Your task to perform on an android device: Open Chrome and go to settings Image 0: 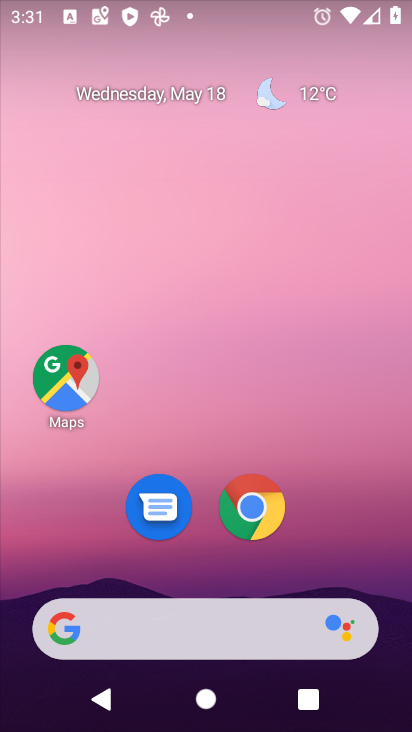
Step 0: click (252, 506)
Your task to perform on an android device: Open Chrome and go to settings Image 1: 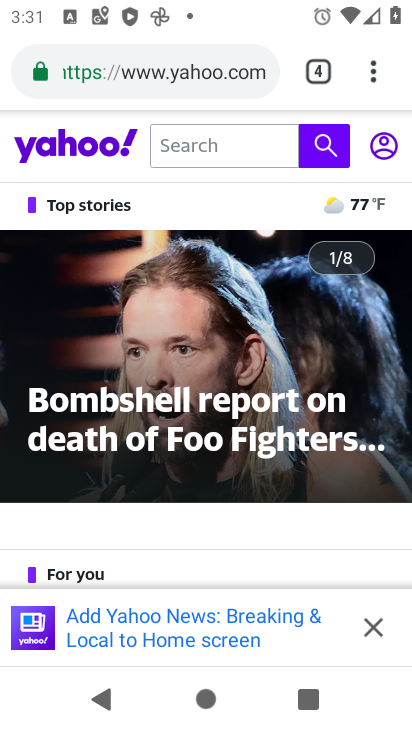
Step 1: click (370, 77)
Your task to perform on an android device: Open Chrome and go to settings Image 2: 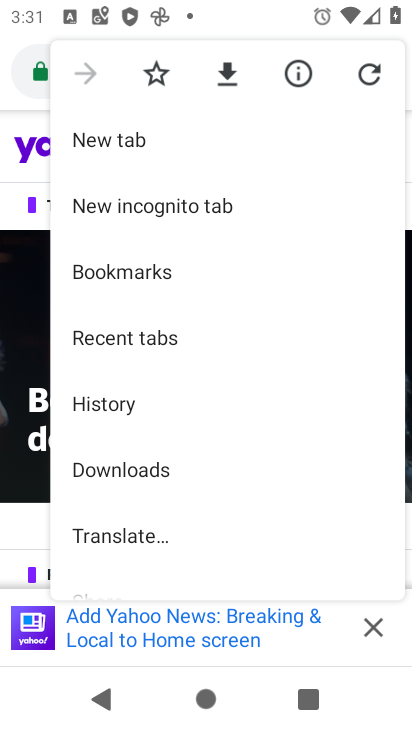
Step 2: drag from (213, 516) to (238, 146)
Your task to perform on an android device: Open Chrome and go to settings Image 3: 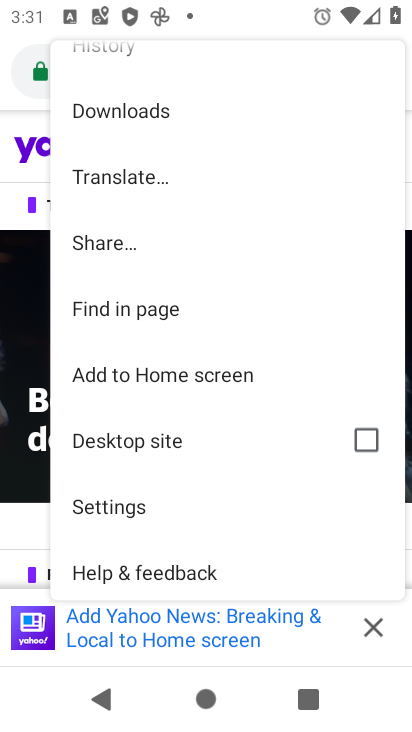
Step 3: click (109, 510)
Your task to perform on an android device: Open Chrome and go to settings Image 4: 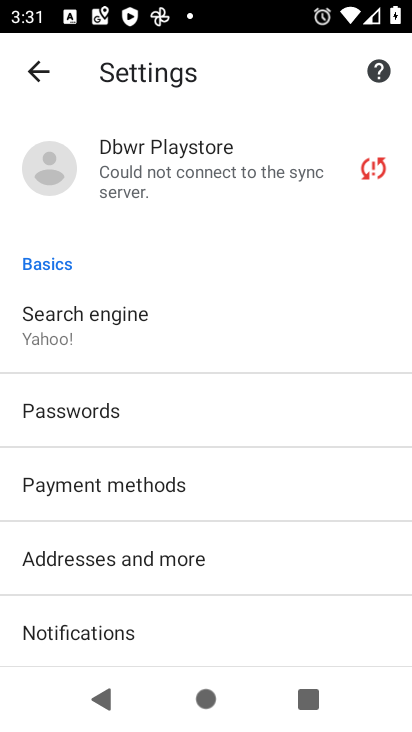
Step 4: task complete